Your task to perform on an android device: change your default location settings in chrome Image 0: 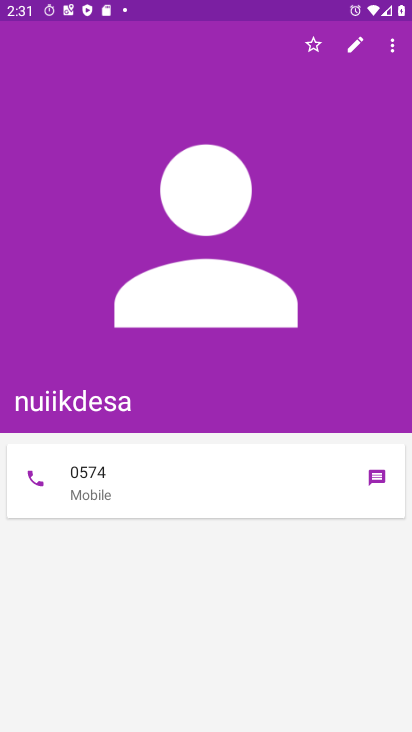
Step 0: press home button
Your task to perform on an android device: change your default location settings in chrome Image 1: 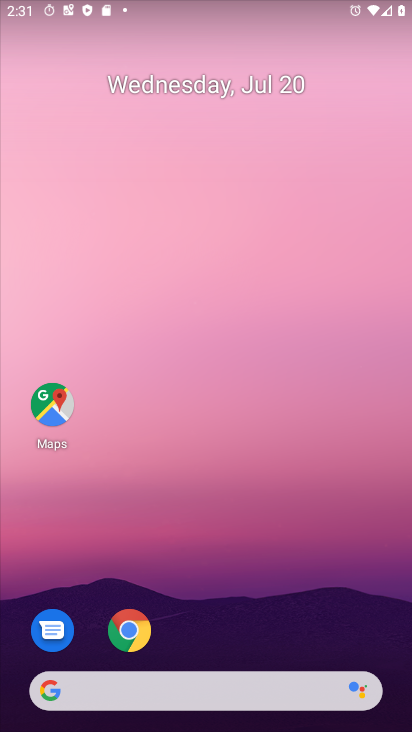
Step 1: click (133, 642)
Your task to perform on an android device: change your default location settings in chrome Image 2: 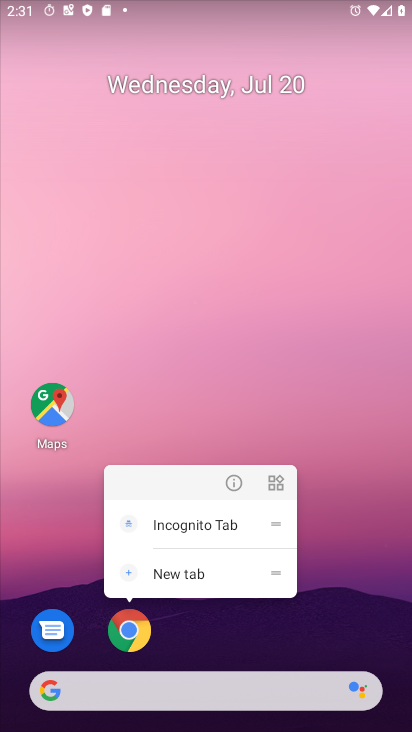
Step 2: click (124, 630)
Your task to perform on an android device: change your default location settings in chrome Image 3: 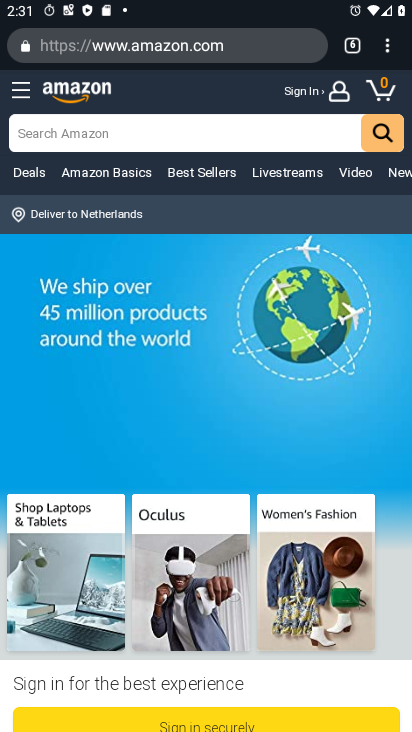
Step 3: drag from (389, 49) to (220, 548)
Your task to perform on an android device: change your default location settings in chrome Image 4: 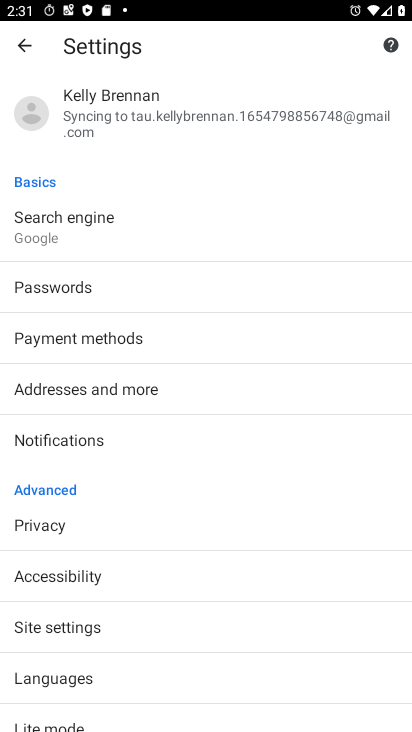
Step 4: click (91, 634)
Your task to perform on an android device: change your default location settings in chrome Image 5: 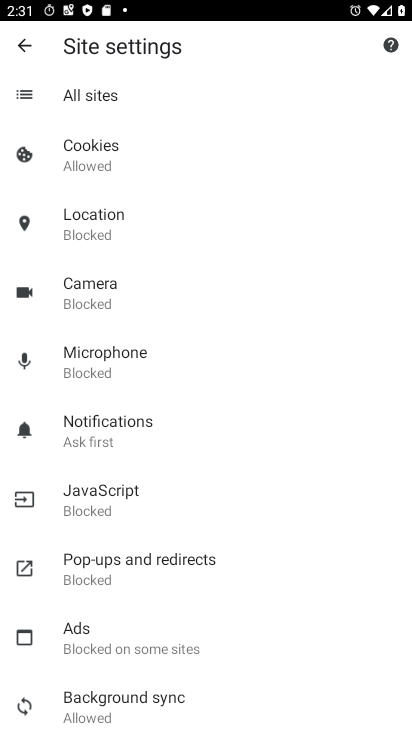
Step 5: click (109, 233)
Your task to perform on an android device: change your default location settings in chrome Image 6: 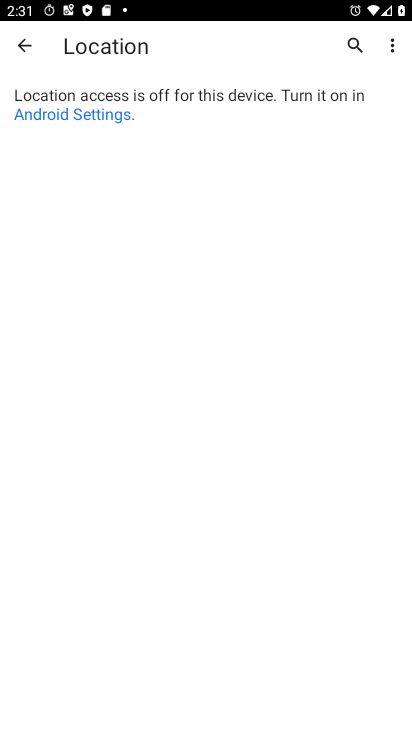
Step 6: click (73, 110)
Your task to perform on an android device: change your default location settings in chrome Image 7: 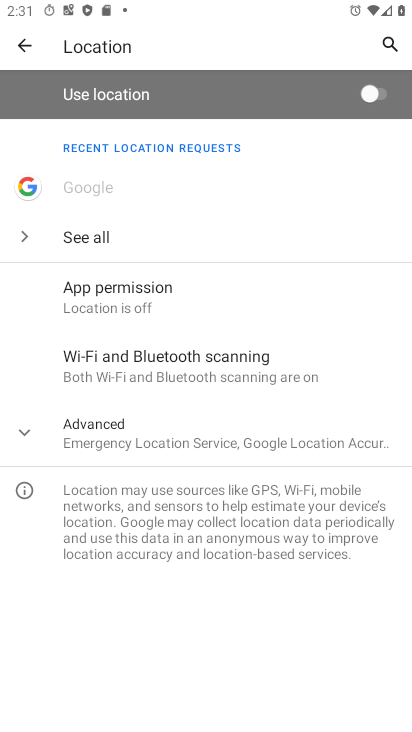
Step 7: click (378, 87)
Your task to perform on an android device: change your default location settings in chrome Image 8: 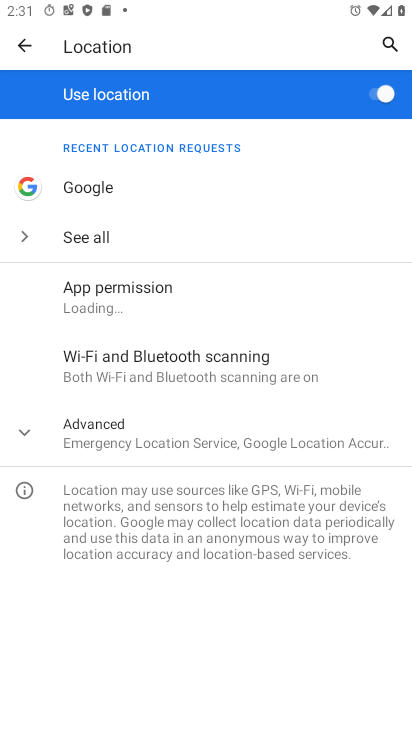
Step 8: task complete